Your task to perform on an android device: Open Chrome and go to the settings page Image 0: 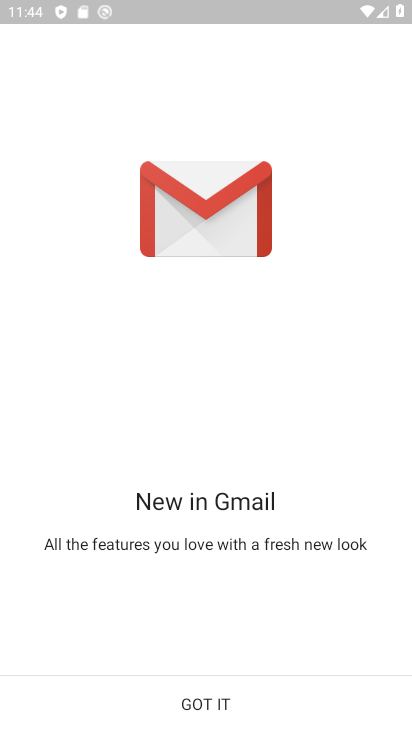
Step 0: press back button
Your task to perform on an android device: Open Chrome and go to the settings page Image 1: 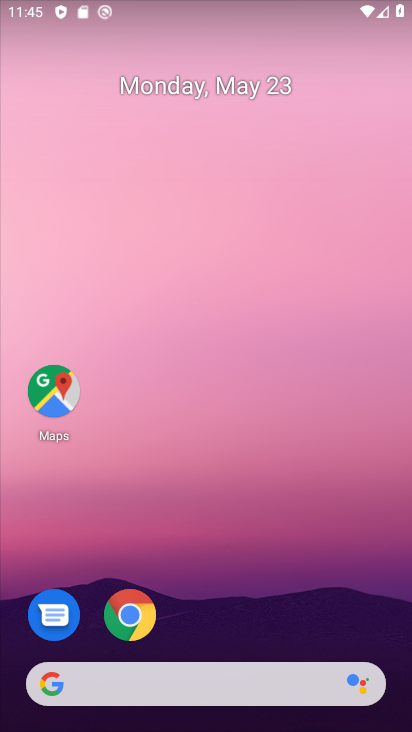
Step 1: drag from (302, 605) to (258, 42)
Your task to perform on an android device: Open Chrome and go to the settings page Image 2: 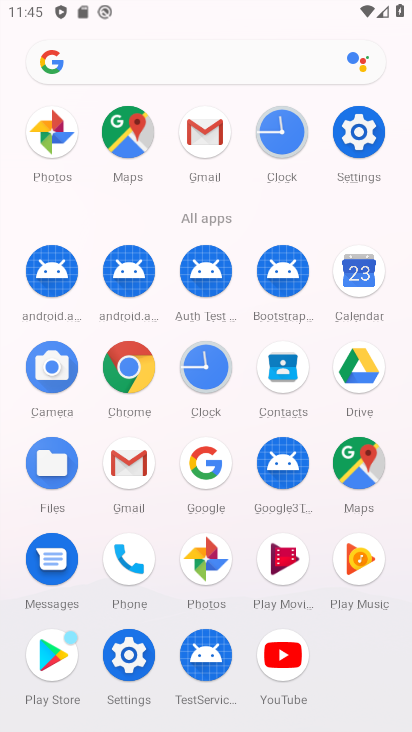
Step 2: drag from (12, 596) to (9, 224)
Your task to perform on an android device: Open Chrome and go to the settings page Image 3: 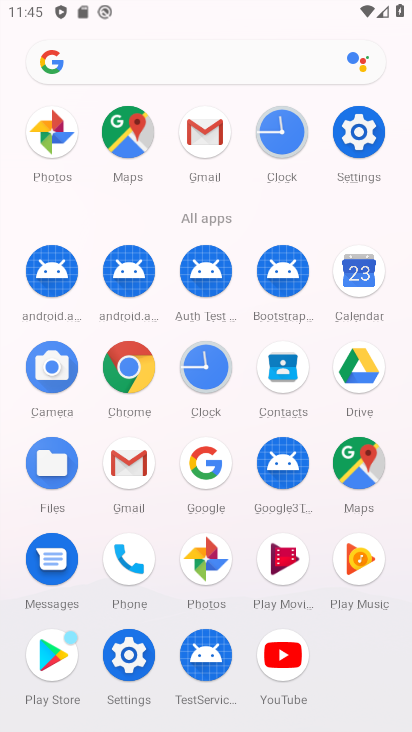
Step 3: click (126, 361)
Your task to perform on an android device: Open Chrome and go to the settings page Image 4: 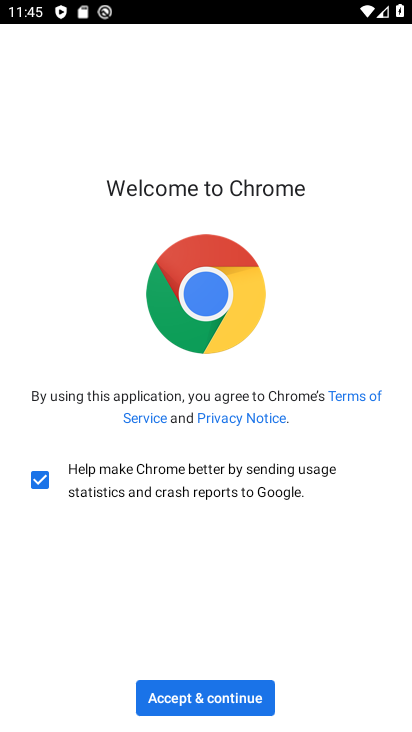
Step 4: click (237, 693)
Your task to perform on an android device: Open Chrome and go to the settings page Image 5: 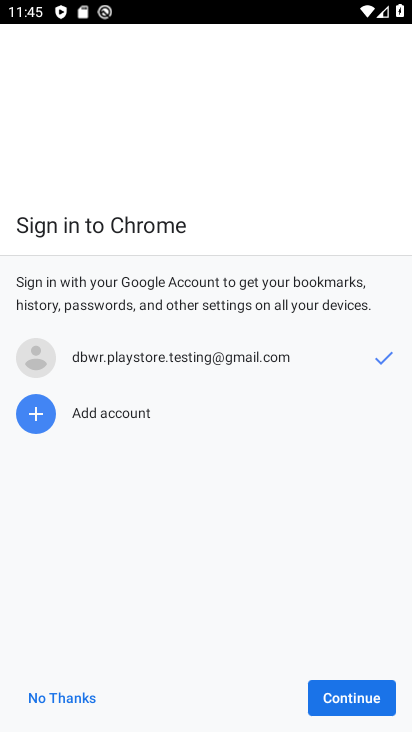
Step 5: click (334, 690)
Your task to perform on an android device: Open Chrome and go to the settings page Image 6: 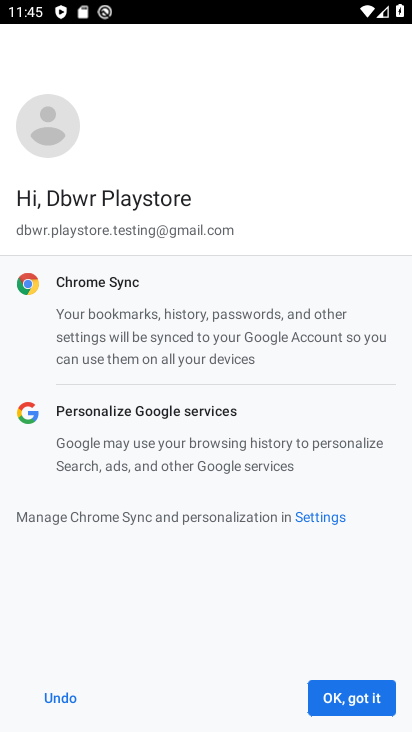
Step 6: click (334, 690)
Your task to perform on an android device: Open Chrome and go to the settings page Image 7: 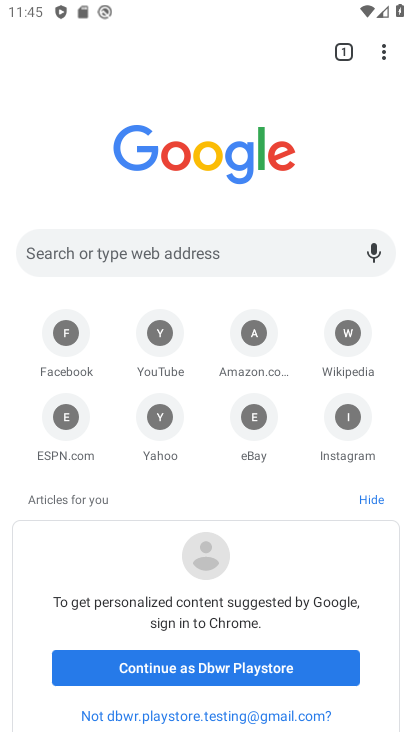
Step 7: task complete